Your task to perform on an android device: open a bookmark in the chrome app Image 0: 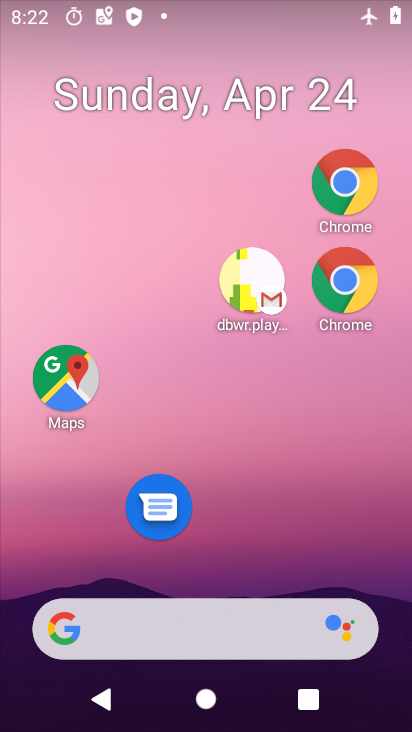
Step 0: drag from (283, 680) to (213, 201)
Your task to perform on an android device: open a bookmark in the chrome app Image 1: 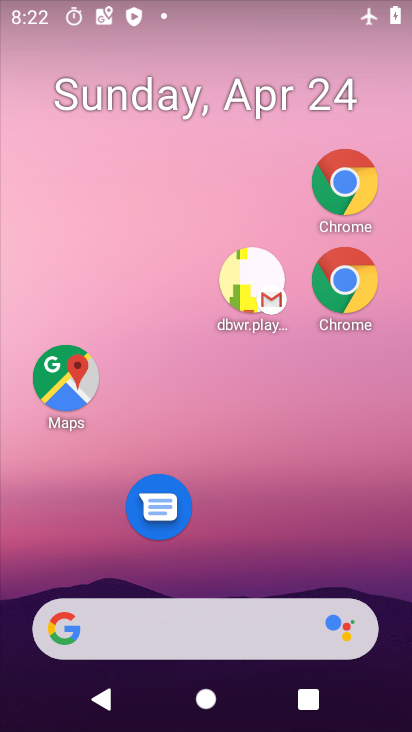
Step 1: drag from (300, 589) to (237, 33)
Your task to perform on an android device: open a bookmark in the chrome app Image 2: 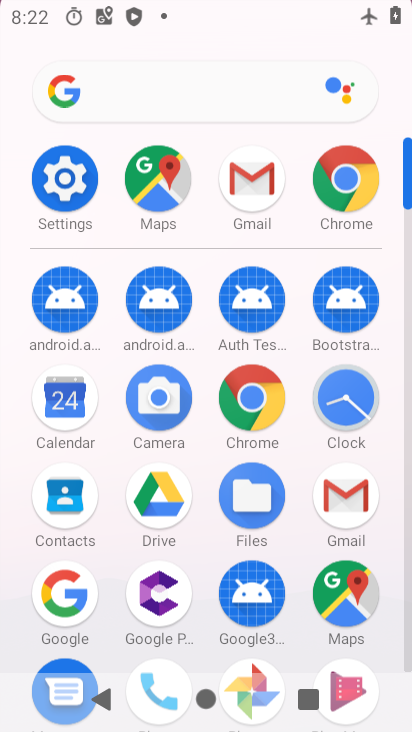
Step 2: drag from (358, 584) to (211, 89)
Your task to perform on an android device: open a bookmark in the chrome app Image 3: 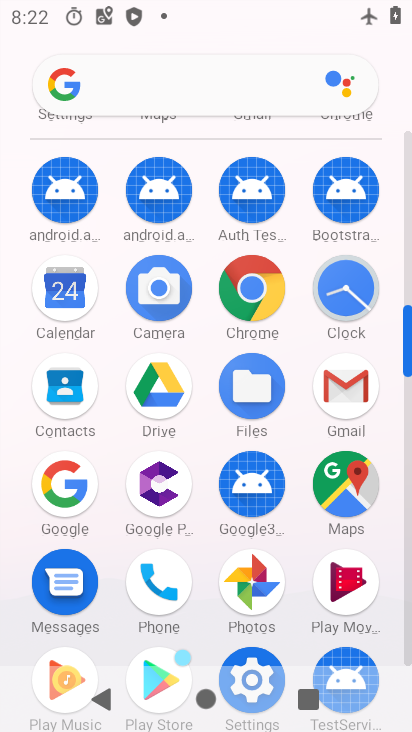
Step 3: click (345, 172)
Your task to perform on an android device: open a bookmark in the chrome app Image 4: 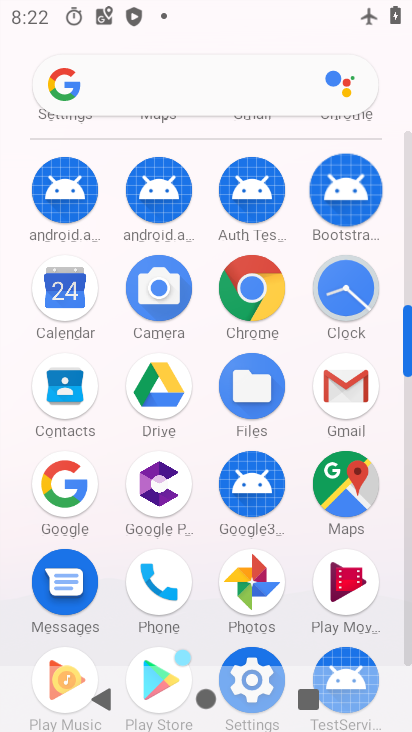
Step 4: click (250, 289)
Your task to perform on an android device: open a bookmark in the chrome app Image 5: 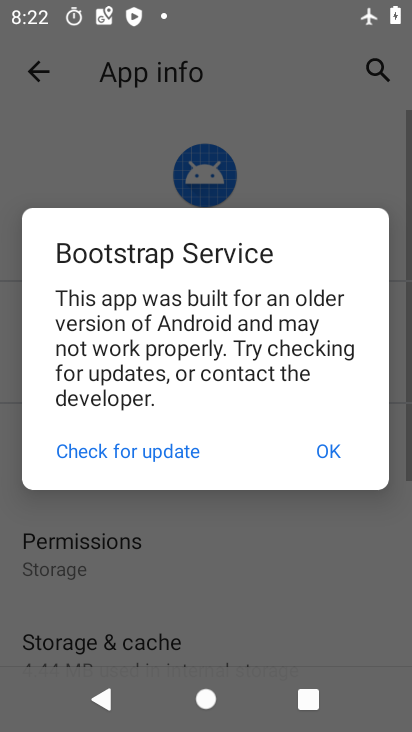
Step 5: click (316, 449)
Your task to perform on an android device: open a bookmark in the chrome app Image 6: 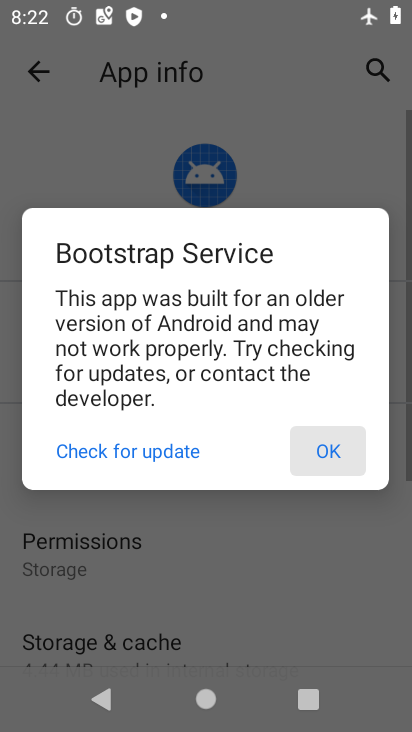
Step 6: click (317, 448)
Your task to perform on an android device: open a bookmark in the chrome app Image 7: 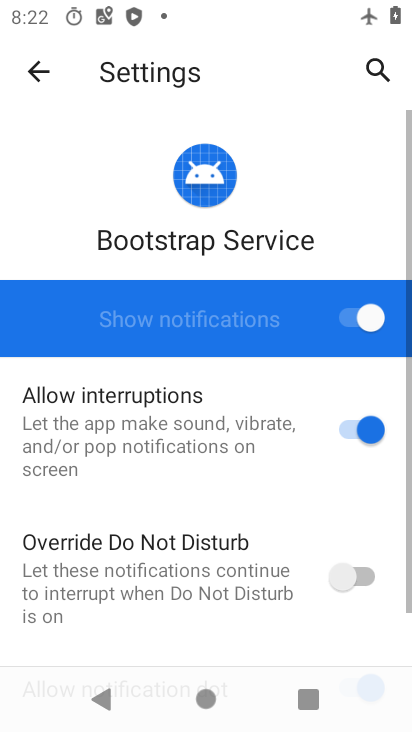
Step 7: click (36, 66)
Your task to perform on an android device: open a bookmark in the chrome app Image 8: 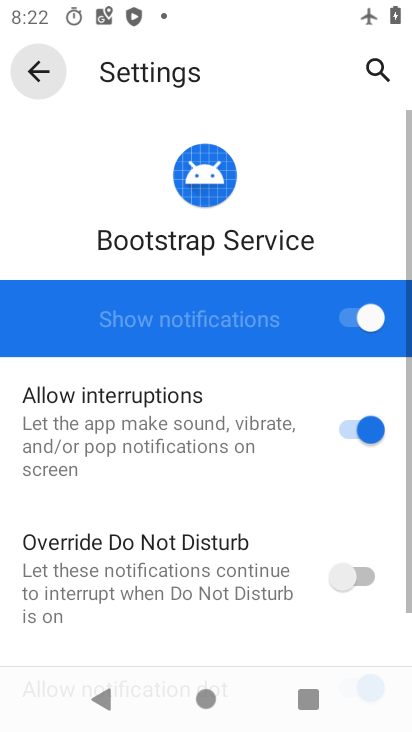
Step 8: click (36, 66)
Your task to perform on an android device: open a bookmark in the chrome app Image 9: 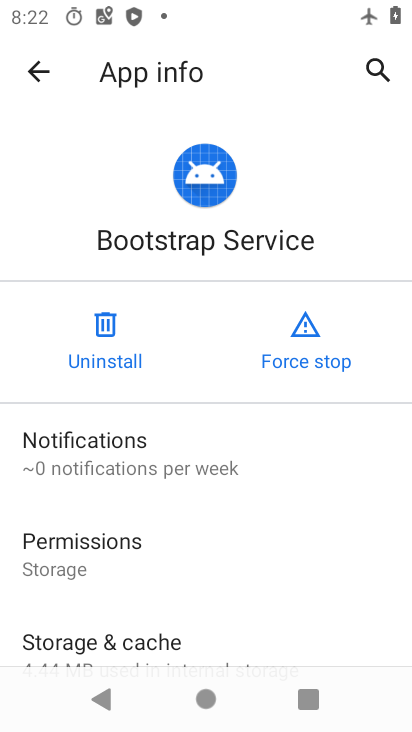
Step 9: click (35, 77)
Your task to perform on an android device: open a bookmark in the chrome app Image 10: 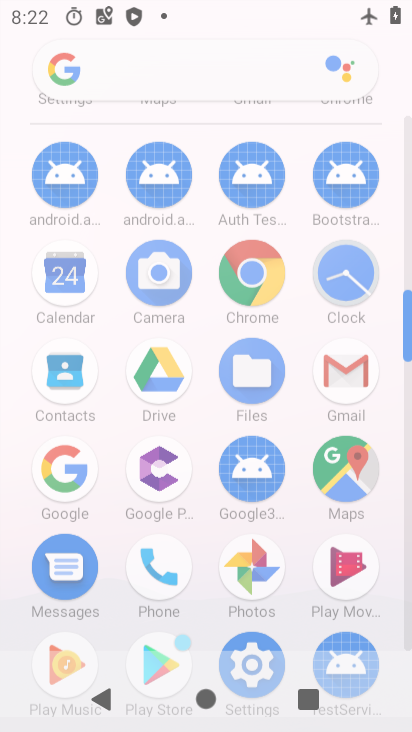
Step 10: click (40, 75)
Your task to perform on an android device: open a bookmark in the chrome app Image 11: 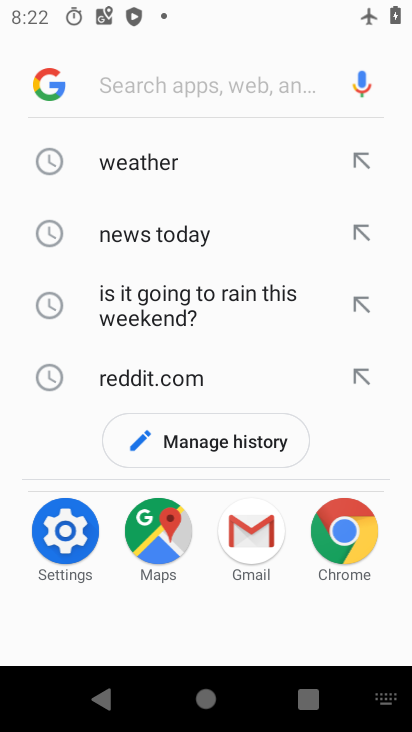
Step 11: click (260, 296)
Your task to perform on an android device: open a bookmark in the chrome app Image 12: 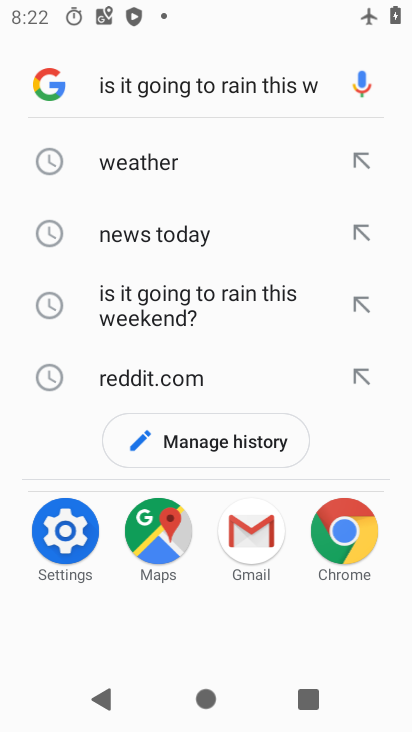
Step 12: click (339, 531)
Your task to perform on an android device: open a bookmark in the chrome app Image 13: 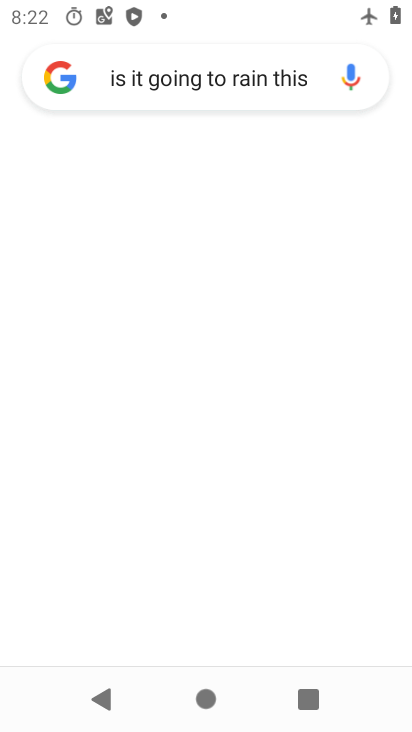
Step 13: click (340, 531)
Your task to perform on an android device: open a bookmark in the chrome app Image 14: 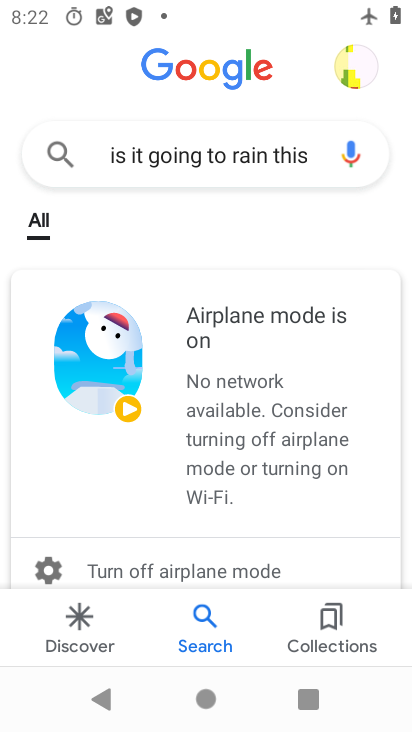
Step 14: press home button
Your task to perform on an android device: open a bookmark in the chrome app Image 15: 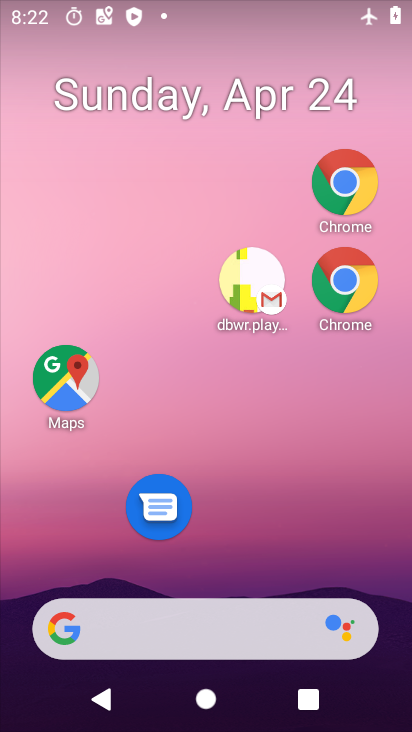
Step 15: click (341, 274)
Your task to perform on an android device: open a bookmark in the chrome app Image 16: 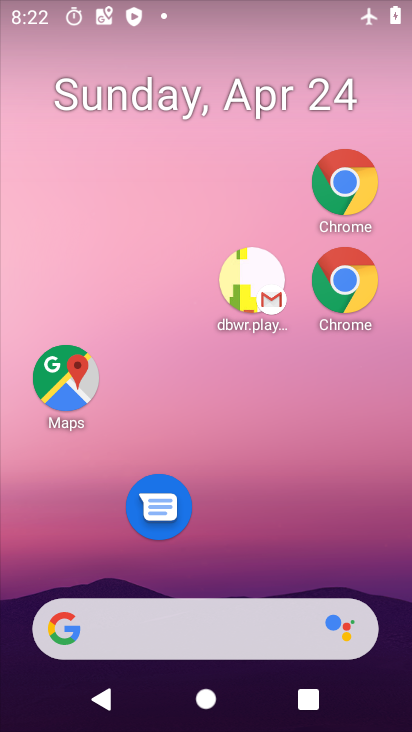
Step 16: click (341, 274)
Your task to perform on an android device: open a bookmark in the chrome app Image 17: 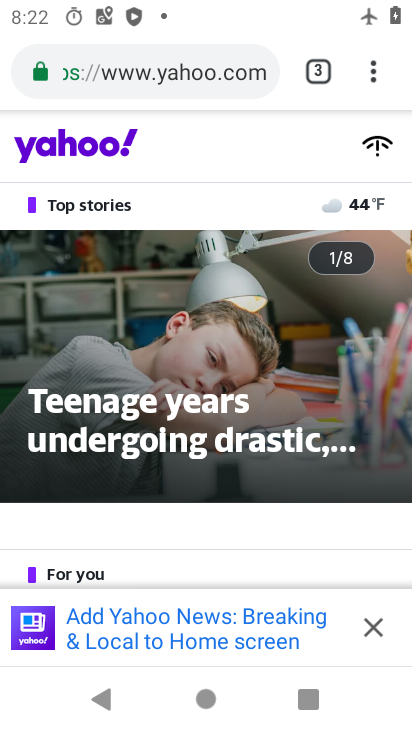
Step 17: drag from (369, 71) to (99, 267)
Your task to perform on an android device: open a bookmark in the chrome app Image 18: 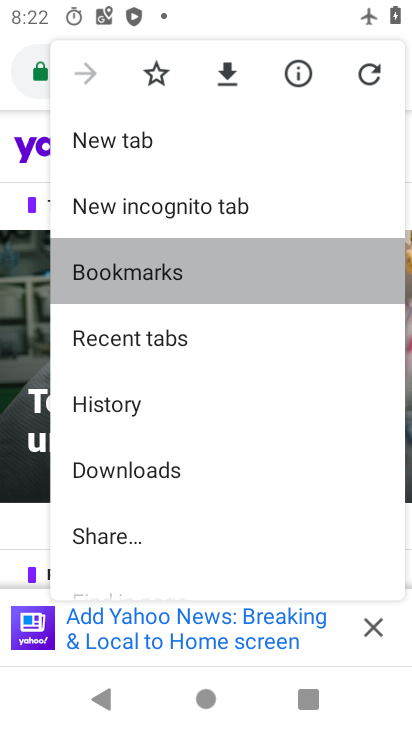
Step 18: click (96, 265)
Your task to perform on an android device: open a bookmark in the chrome app Image 19: 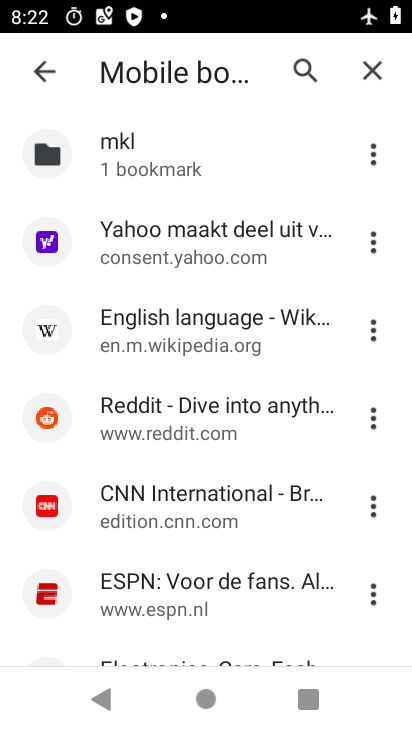
Step 19: task complete